Your task to perform on an android device: turn off wifi Image 0: 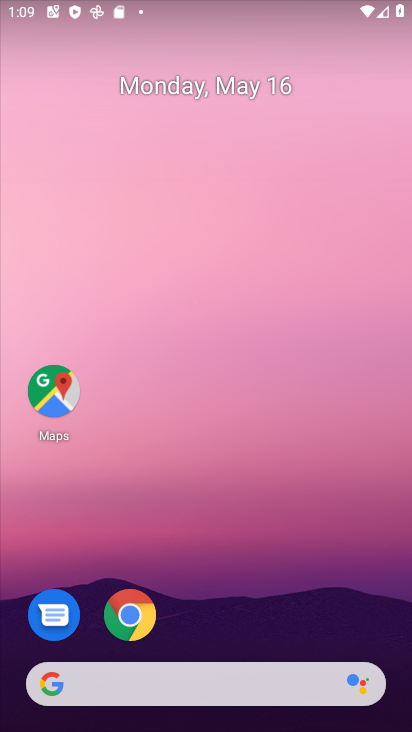
Step 0: drag from (188, 687) to (227, 2)
Your task to perform on an android device: turn off wifi Image 1: 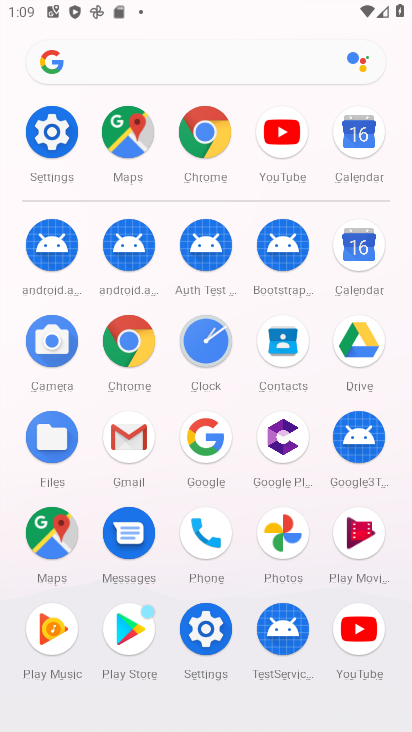
Step 1: click (36, 139)
Your task to perform on an android device: turn off wifi Image 2: 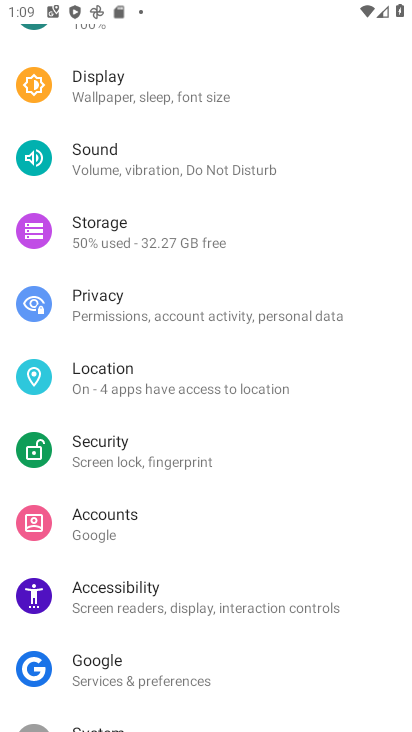
Step 2: drag from (247, 202) to (184, 664)
Your task to perform on an android device: turn off wifi Image 3: 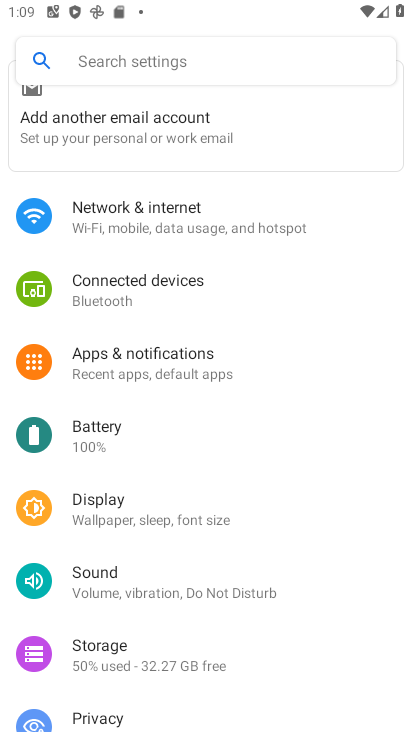
Step 3: click (241, 220)
Your task to perform on an android device: turn off wifi Image 4: 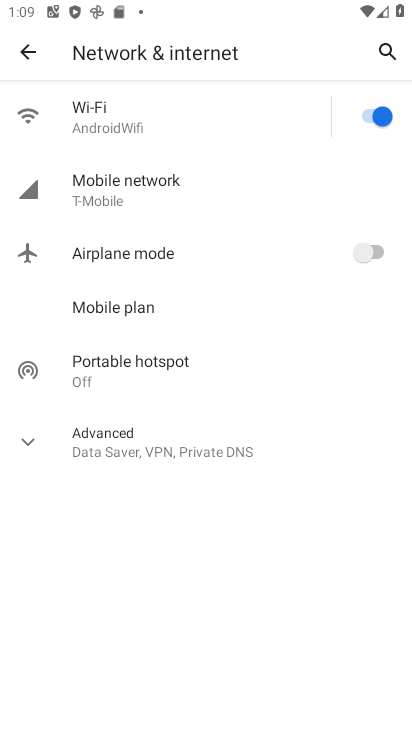
Step 4: click (376, 110)
Your task to perform on an android device: turn off wifi Image 5: 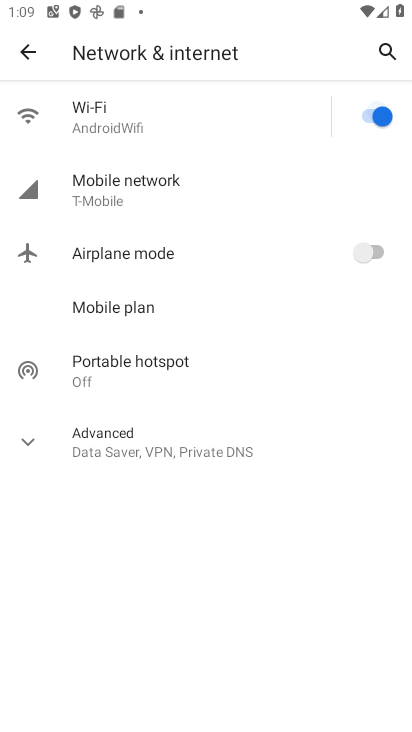
Step 5: task complete